Your task to perform on an android device: toggle pop-ups in chrome Image 0: 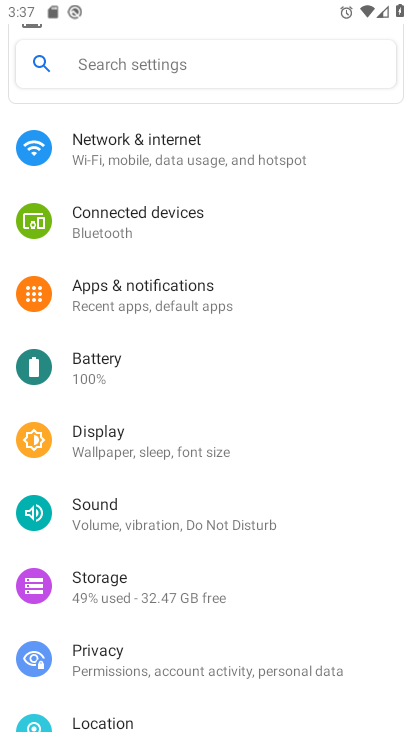
Step 0: press home button
Your task to perform on an android device: toggle pop-ups in chrome Image 1: 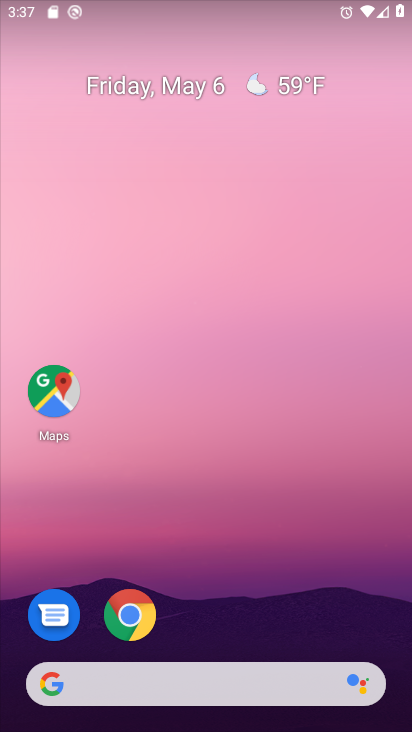
Step 1: click (135, 618)
Your task to perform on an android device: toggle pop-ups in chrome Image 2: 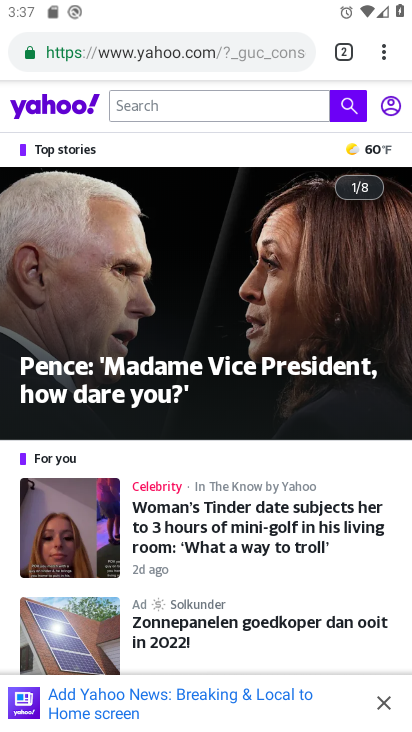
Step 2: drag from (388, 51) to (211, 627)
Your task to perform on an android device: toggle pop-ups in chrome Image 3: 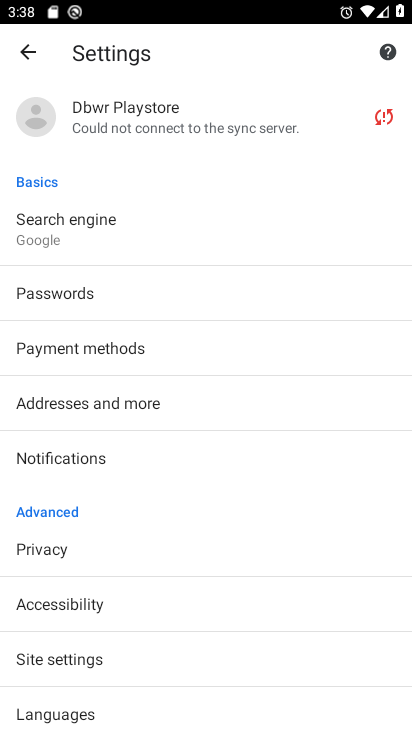
Step 3: click (66, 654)
Your task to perform on an android device: toggle pop-ups in chrome Image 4: 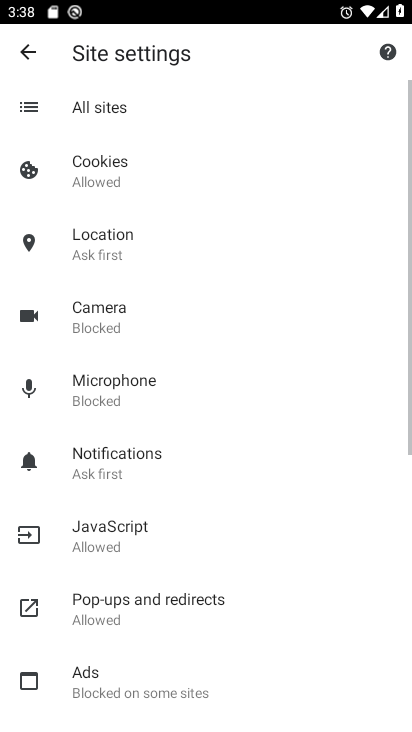
Step 4: click (116, 612)
Your task to perform on an android device: toggle pop-ups in chrome Image 5: 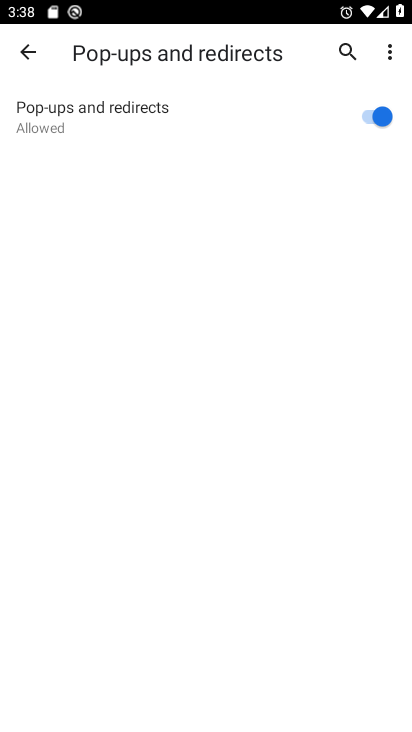
Step 5: click (388, 115)
Your task to perform on an android device: toggle pop-ups in chrome Image 6: 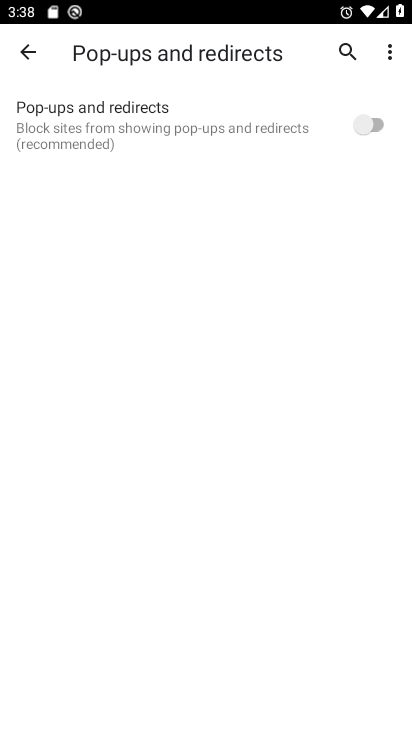
Step 6: task complete